Your task to perform on an android device: manage bookmarks in the chrome app Image 0: 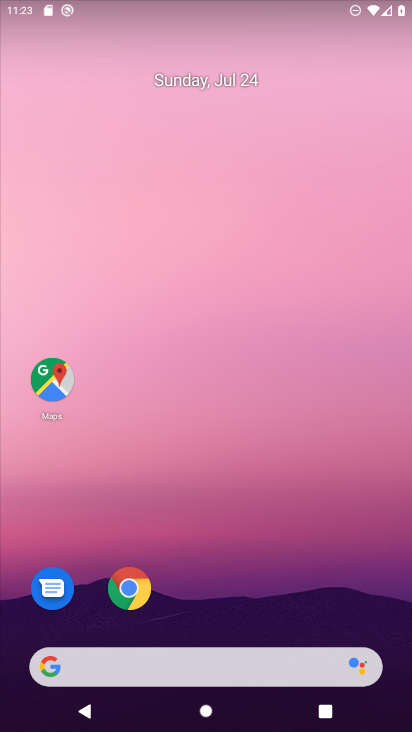
Step 0: drag from (394, 626) to (236, 138)
Your task to perform on an android device: manage bookmarks in the chrome app Image 1: 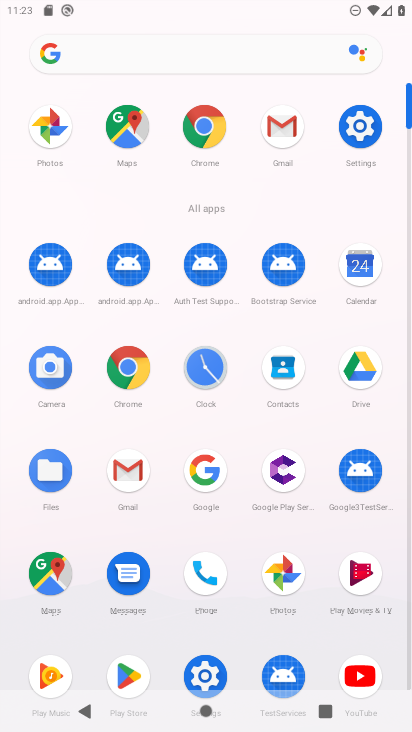
Step 1: click (202, 132)
Your task to perform on an android device: manage bookmarks in the chrome app Image 2: 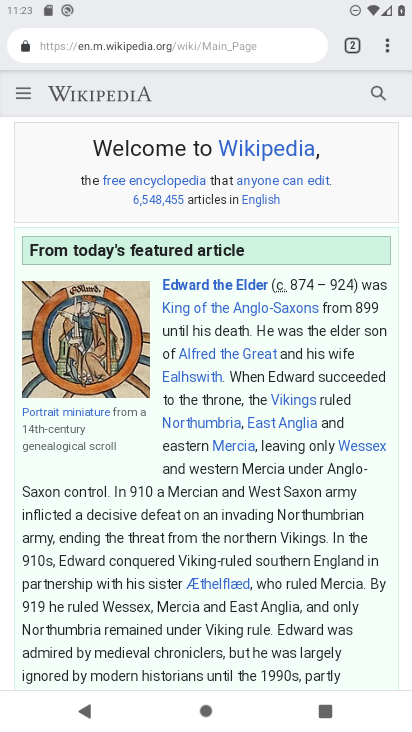
Step 2: click (385, 59)
Your task to perform on an android device: manage bookmarks in the chrome app Image 3: 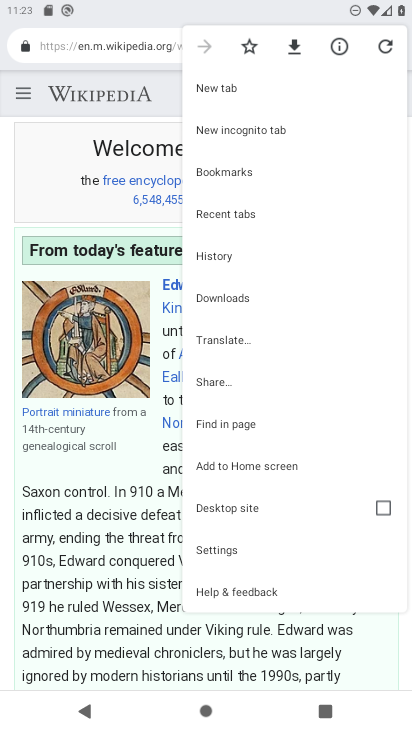
Step 3: click (305, 175)
Your task to perform on an android device: manage bookmarks in the chrome app Image 4: 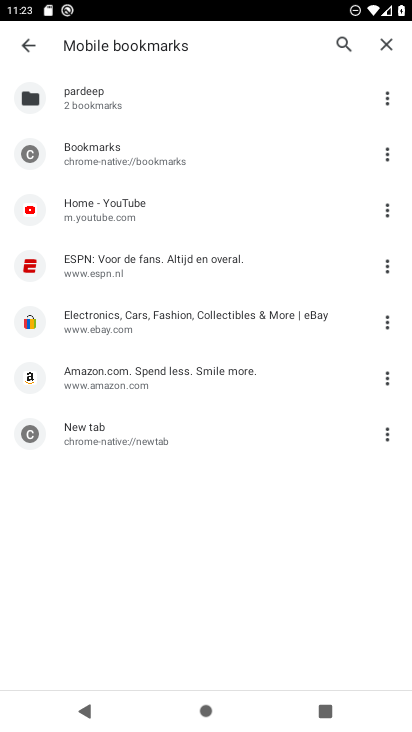
Step 4: click (155, 211)
Your task to perform on an android device: manage bookmarks in the chrome app Image 5: 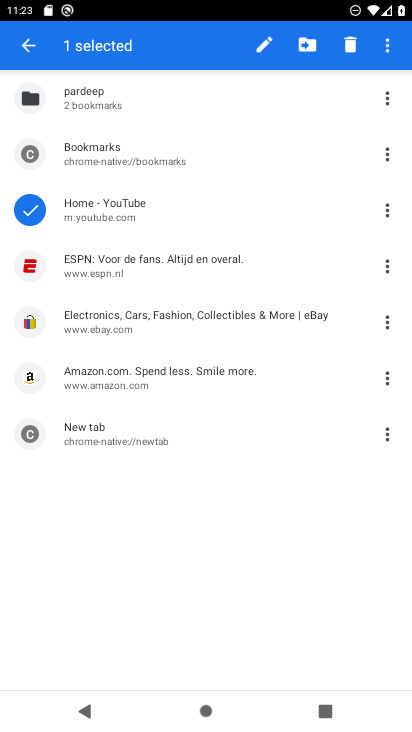
Step 5: click (312, 37)
Your task to perform on an android device: manage bookmarks in the chrome app Image 6: 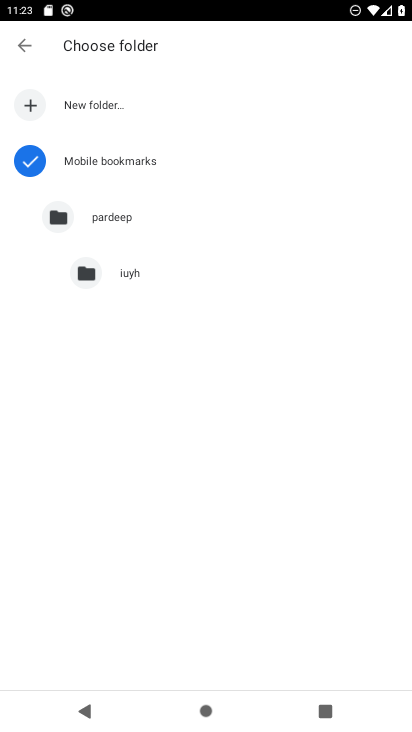
Step 6: click (150, 160)
Your task to perform on an android device: manage bookmarks in the chrome app Image 7: 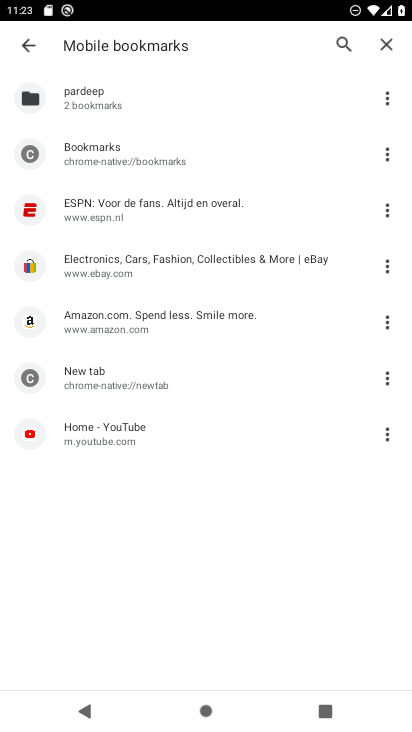
Step 7: task complete